Your task to perform on an android device: What's the weather going to be this weekend? Image 0: 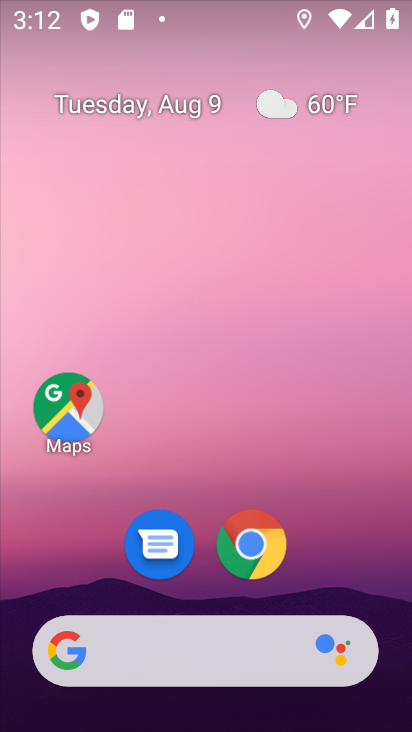
Step 0: click (240, 641)
Your task to perform on an android device: What's the weather going to be this weekend? Image 1: 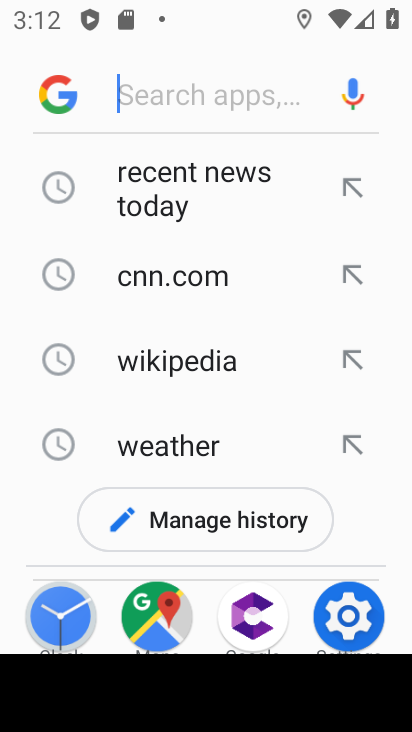
Step 1: type "What's the weather going to be this weekend?"
Your task to perform on an android device: What's the weather going to be this weekend? Image 2: 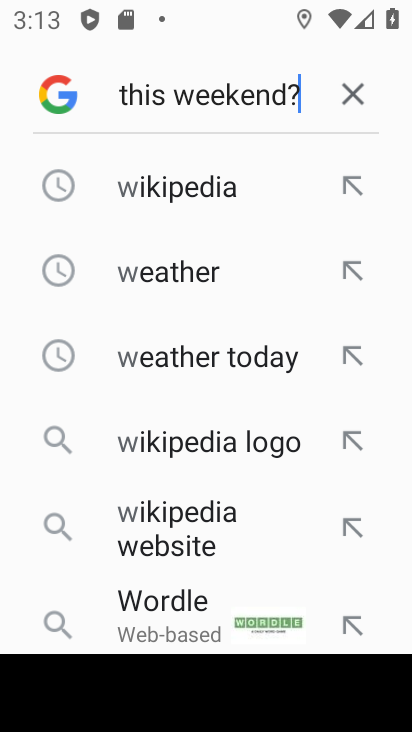
Step 2: type ""
Your task to perform on an android device: What's the weather going to be this weekend? Image 3: 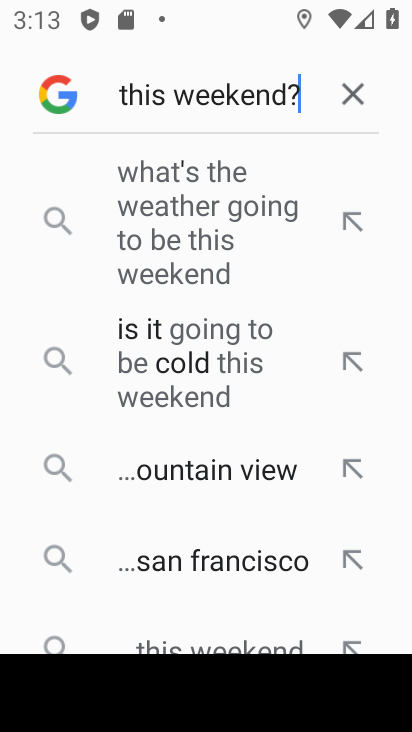
Step 3: press enter
Your task to perform on an android device: What's the weather going to be this weekend? Image 4: 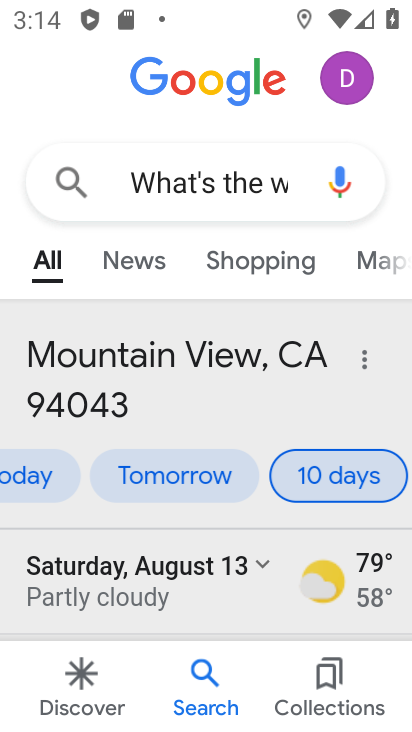
Step 4: task complete